Your task to perform on an android device: open chrome and create a bookmark for the current page Image 0: 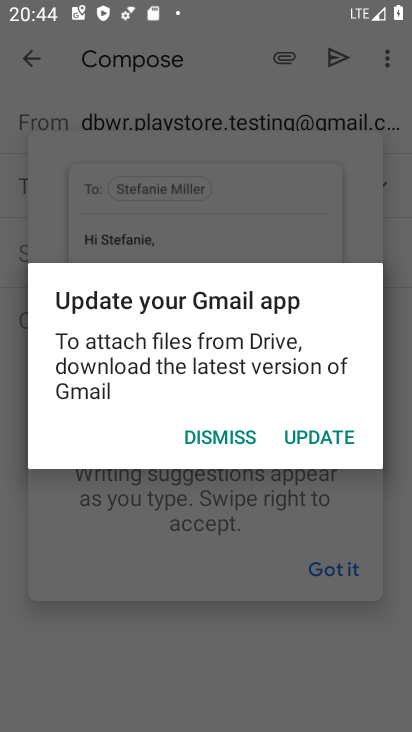
Step 0: press home button
Your task to perform on an android device: open chrome and create a bookmark for the current page Image 1: 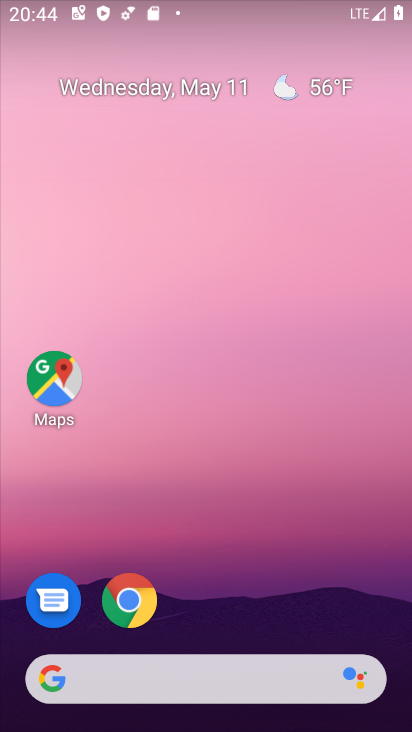
Step 1: click (131, 600)
Your task to perform on an android device: open chrome and create a bookmark for the current page Image 2: 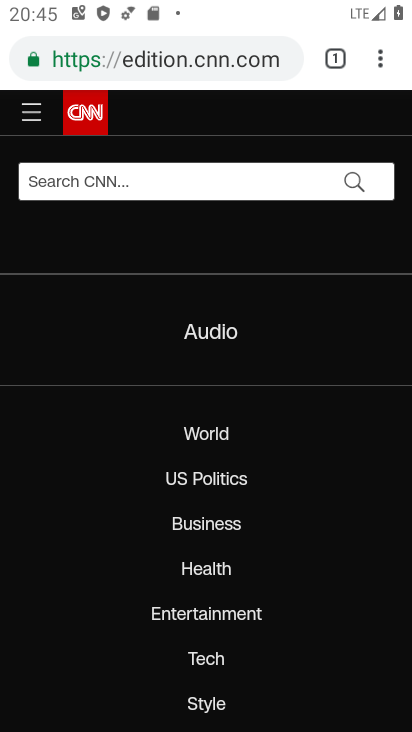
Step 2: click (378, 56)
Your task to perform on an android device: open chrome and create a bookmark for the current page Image 3: 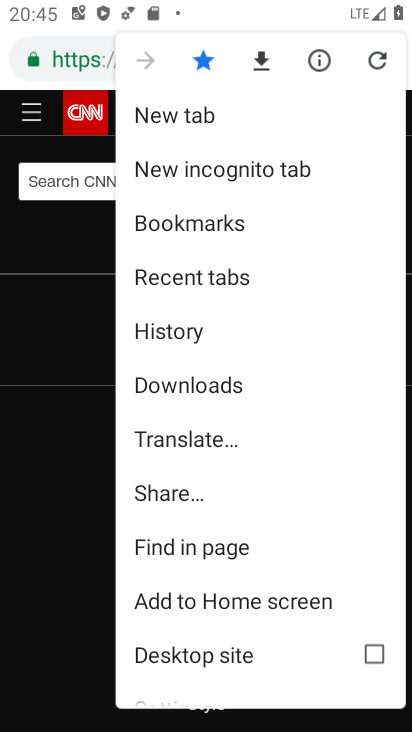
Step 3: task complete